Your task to perform on an android device: turn on improve location accuracy Image 0: 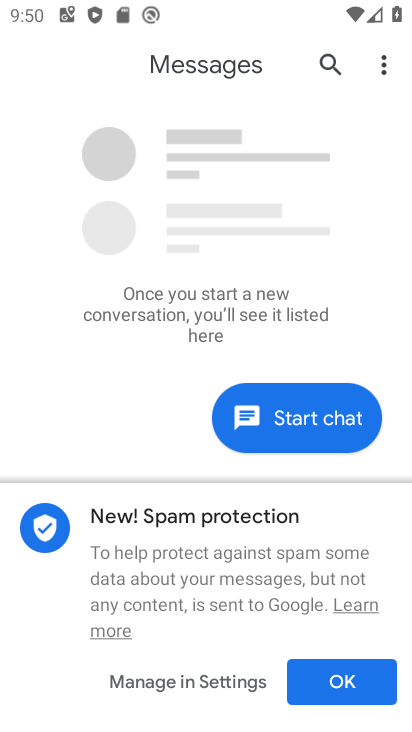
Step 0: press home button
Your task to perform on an android device: turn on improve location accuracy Image 1: 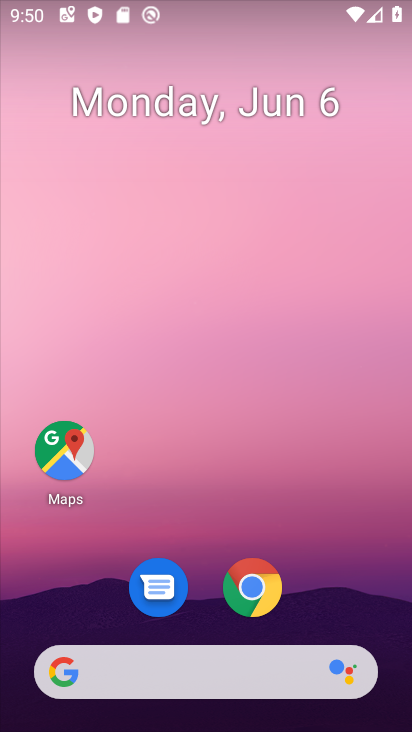
Step 1: click (58, 438)
Your task to perform on an android device: turn on improve location accuracy Image 2: 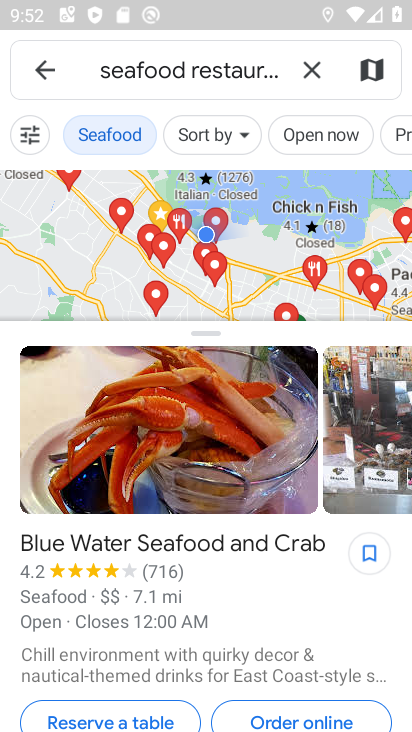
Step 2: click (303, 63)
Your task to perform on an android device: turn on improve location accuracy Image 3: 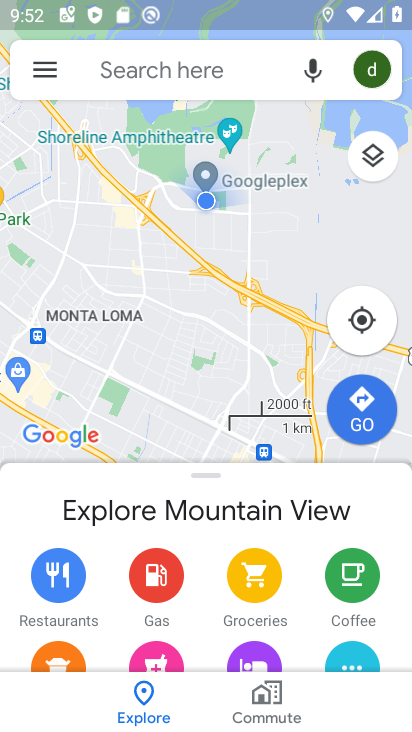
Step 3: click (45, 67)
Your task to perform on an android device: turn on improve location accuracy Image 4: 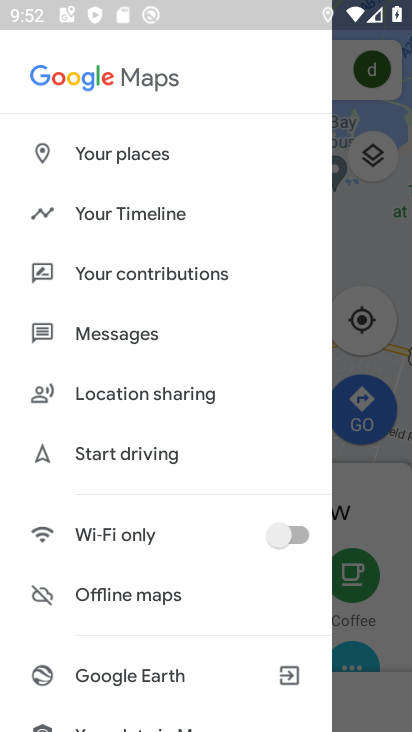
Step 4: drag from (146, 632) to (212, 83)
Your task to perform on an android device: turn on improve location accuracy Image 5: 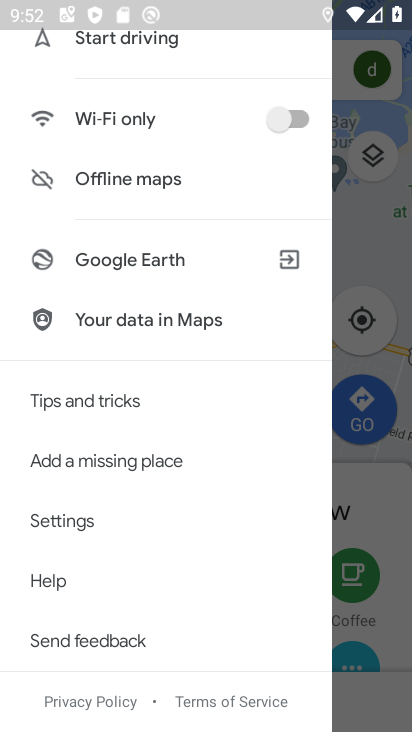
Step 5: click (77, 521)
Your task to perform on an android device: turn on improve location accuracy Image 6: 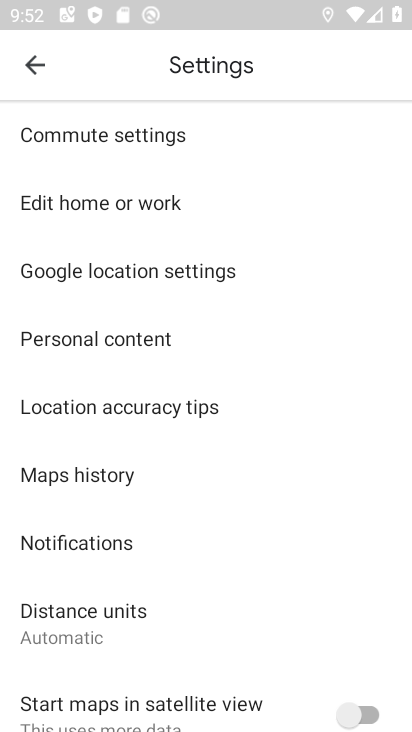
Step 6: click (177, 280)
Your task to perform on an android device: turn on improve location accuracy Image 7: 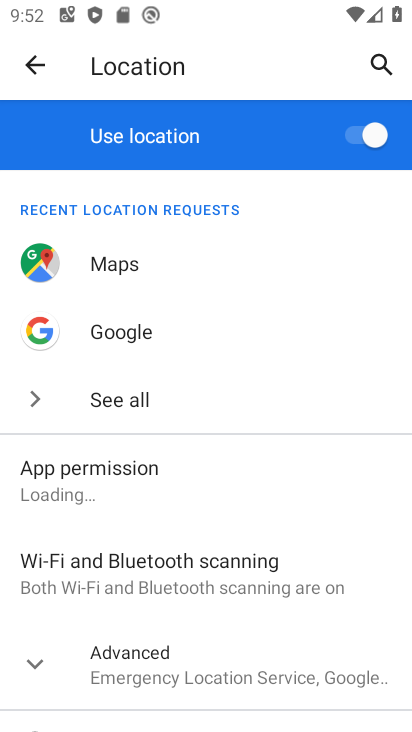
Step 7: click (172, 687)
Your task to perform on an android device: turn on improve location accuracy Image 8: 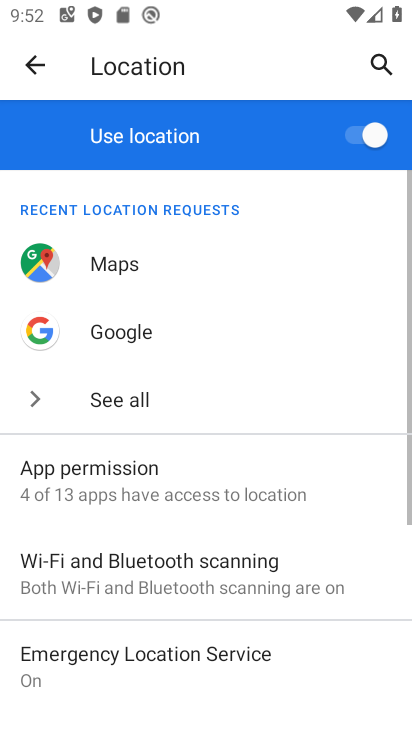
Step 8: drag from (263, 646) to (202, 254)
Your task to perform on an android device: turn on improve location accuracy Image 9: 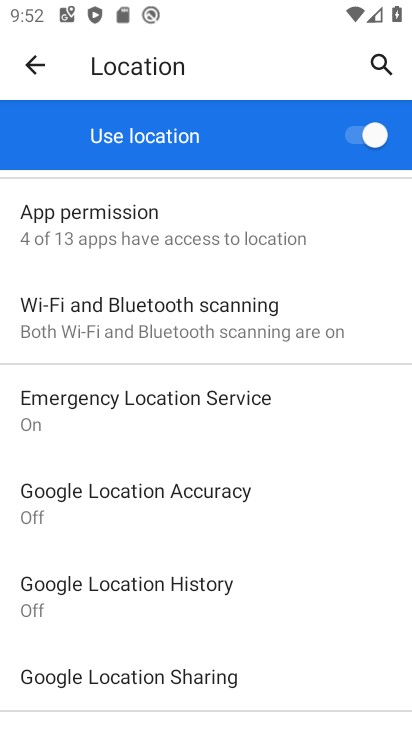
Step 9: click (201, 499)
Your task to perform on an android device: turn on improve location accuracy Image 10: 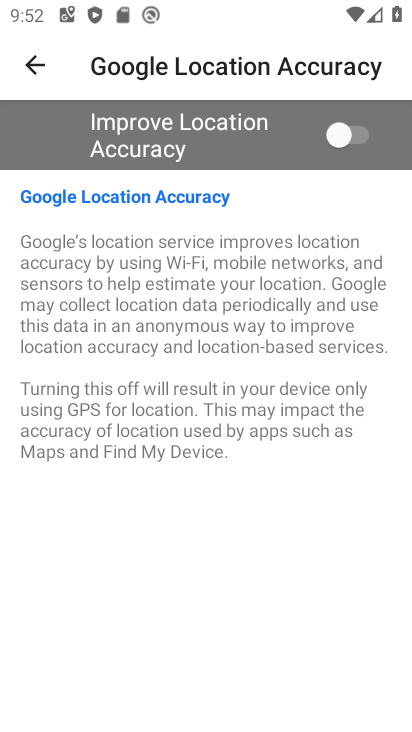
Step 10: click (369, 137)
Your task to perform on an android device: turn on improve location accuracy Image 11: 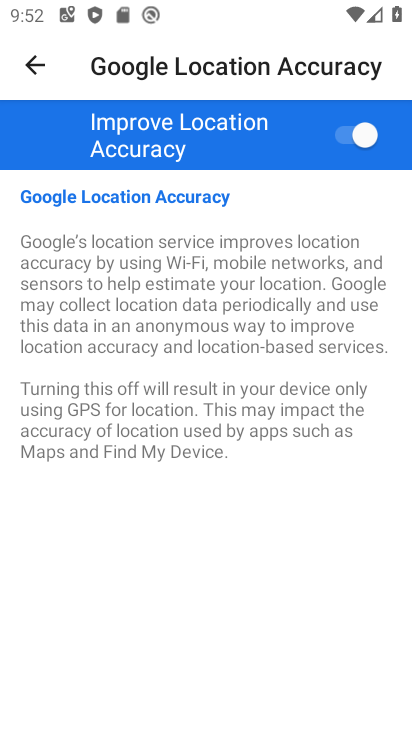
Step 11: task complete